Your task to perform on an android device: turn off notifications settings in the gmail app Image 0: 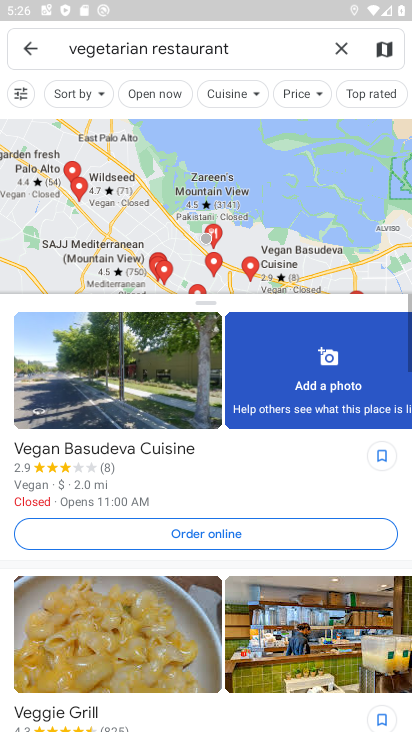
Step 0: click (130, 627)
Your task to perform on an android device: turn off notifications settings in the gmail app Image 1: 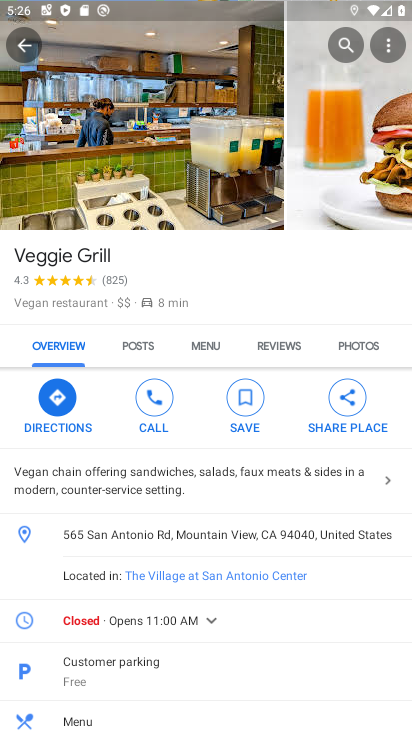
Step 1: press home button
Your task to perform on an android device: turn off notifications settings in the gmail app Image 2: 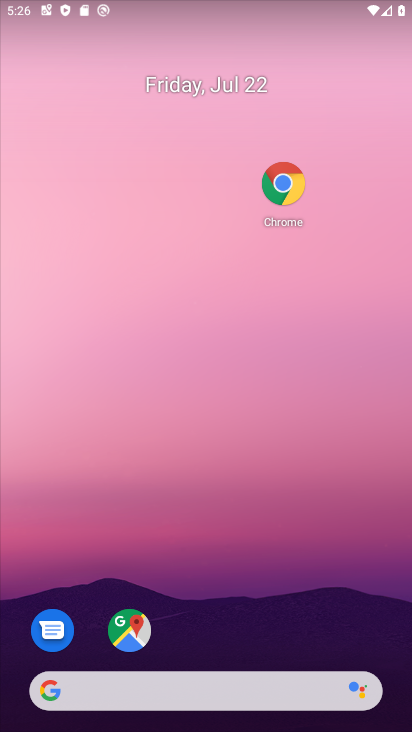
Step 2: drag from (221, 588) to (155, 88)
Your task to perform on an android device: turn off notifications settings in the gmail app Image 3: 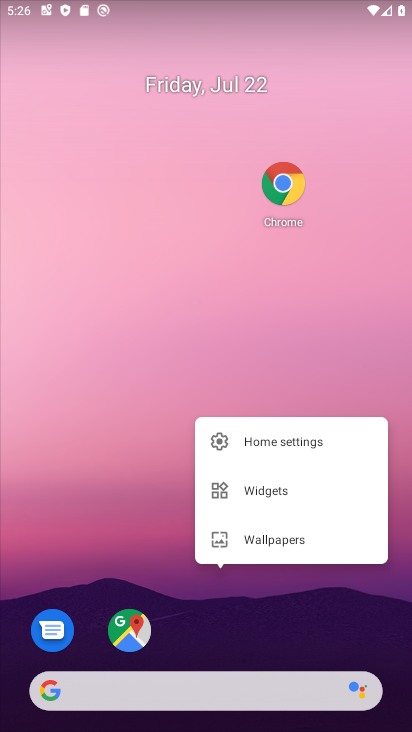
Step 3: click (197, 639)
Your task to perform on an android device: turn off notifications settings in the gmail app Image 4: 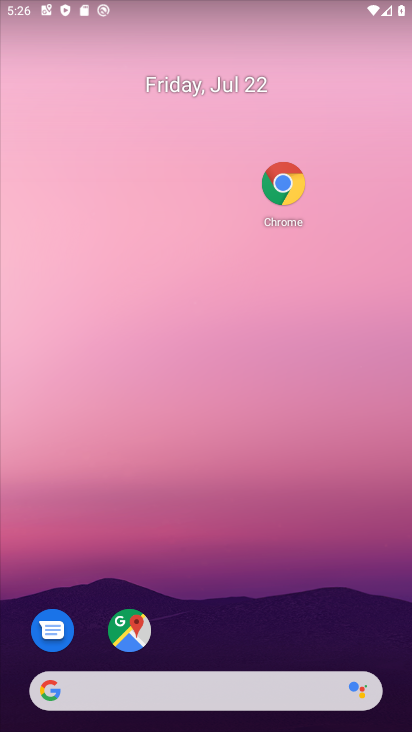
Step 4: drag from (197, 635) to (126, 40)
Your task to perform on an android device: turn off notifications settings in the gmail app Image 5: 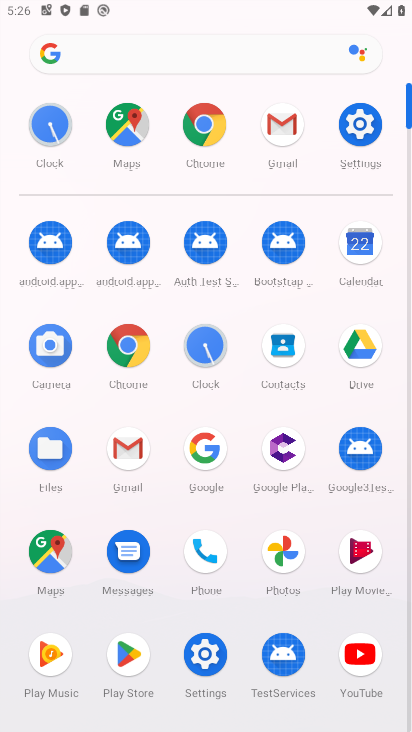
Step 5: click (131, 459)
Your task to perform on an android device: turn off notifications settings in the gmail app Image 6: 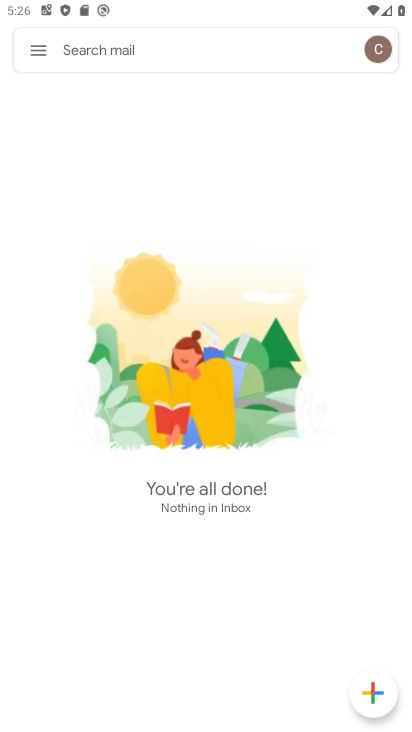
Step 6: click (33, 48)
Your task to perform on an android device: turn off notifications settings in the gmail app Image 7: 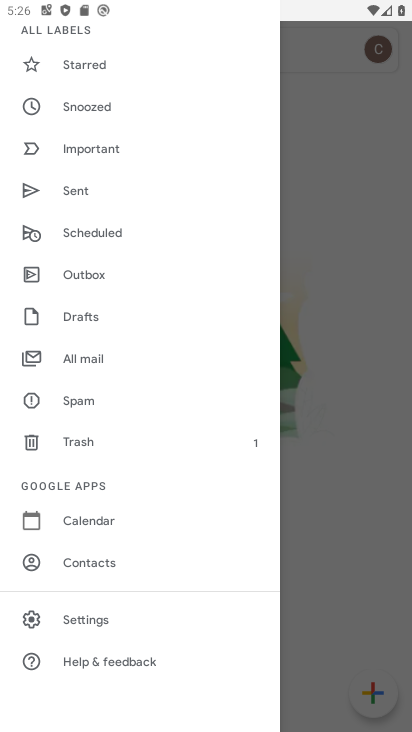
Step 7: click (92, 623)
Your task to perform on an android device: turn off notifications settings in the gmail app Image 8: 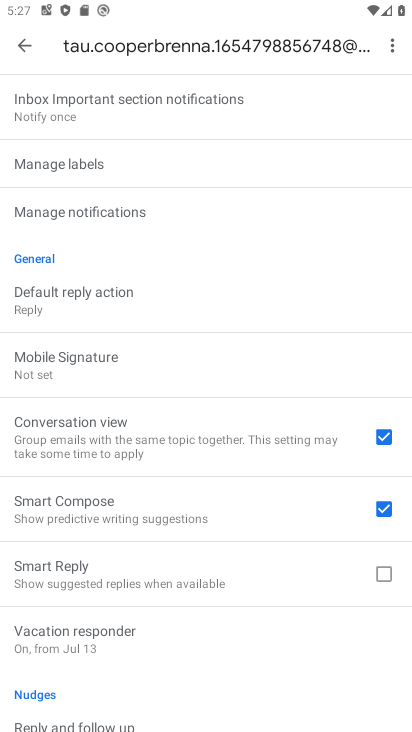
Step 8: click (91, 210)
Your task to perform on an android device: turn off notifications settings in the gmail app Image 9: 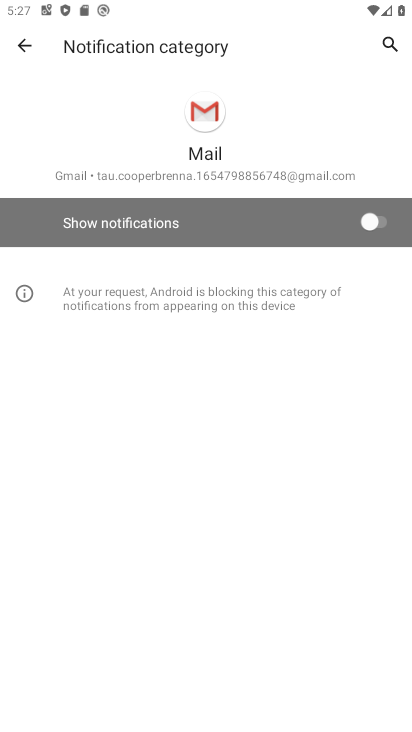
Step 9: task complete